Your task to perform on an android device: turn notification dots on Image 0: 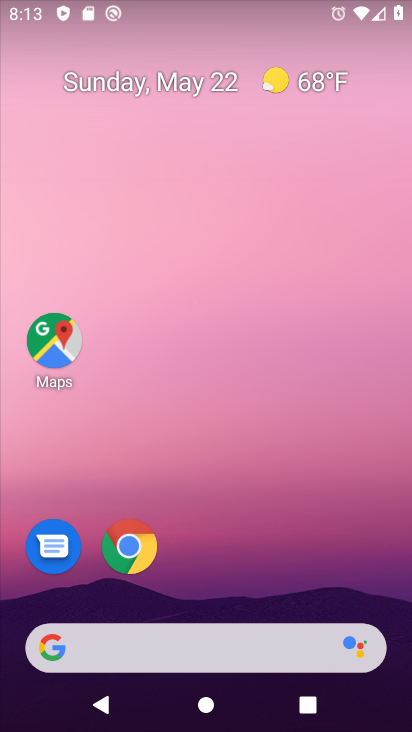
Step 0: drag from (167, 458) to (76, 11)
Your task to perform on an android device: turn notification dots on Image 1: 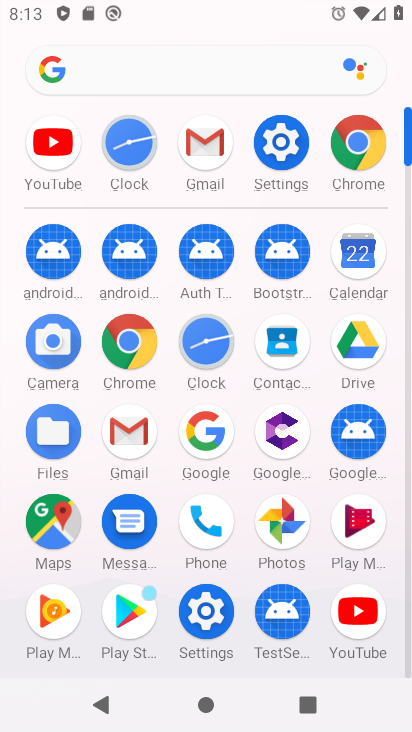
Step 1: drag from (289, 581) to (219, 48)
Your task to perform on an android device: turn notification dots on Image 2: 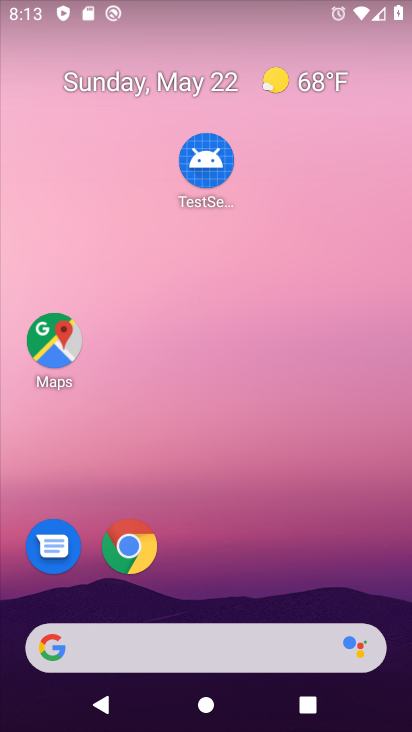
Step 2: drag from (237, 579) to (208, 109)
Your task to perform on an android device: turn notification dots on Image 3: 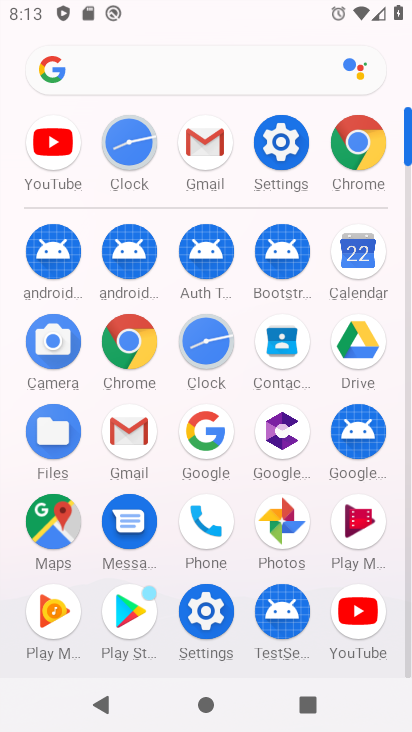
Step 3: click (196, 18)
Your task to perform on an android device: turn notification dots on Image 4: 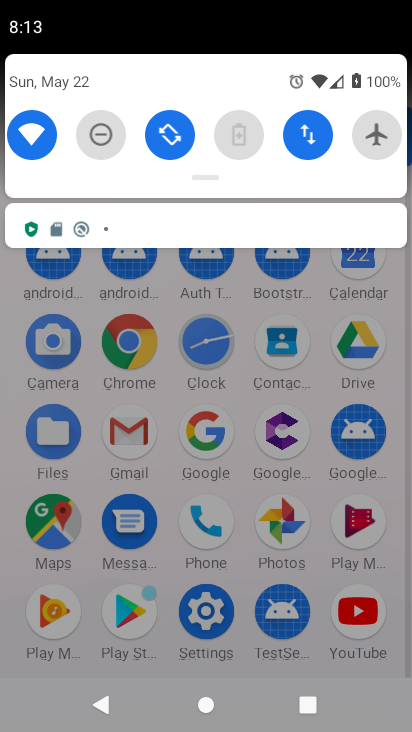
Step 4: drag from (303, 276) to (165, 156)
Your task to perform on an android device: turn notification dots on Image 5: 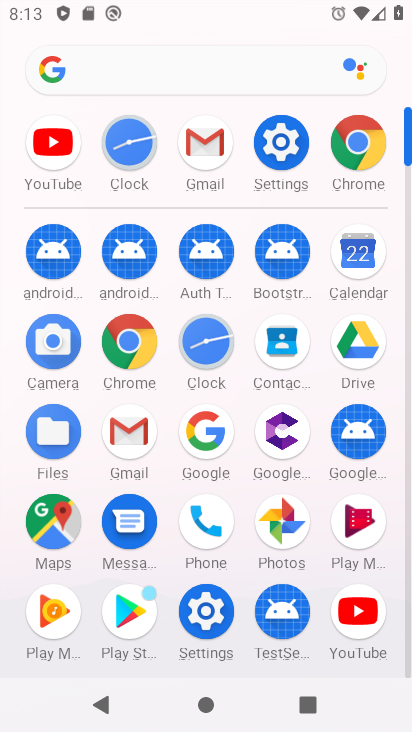
Step 5: drag from (247, 593) to (109, 82)
Your task to perform on an android device: turn notification dots on Image 6: 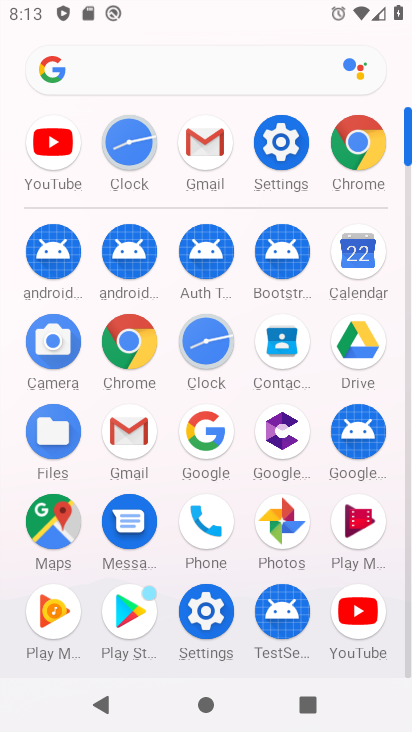
Step 6: drag from (165, 569) to (147, 6)
Your task to perform on an android device: turn notification dots on Image 7: 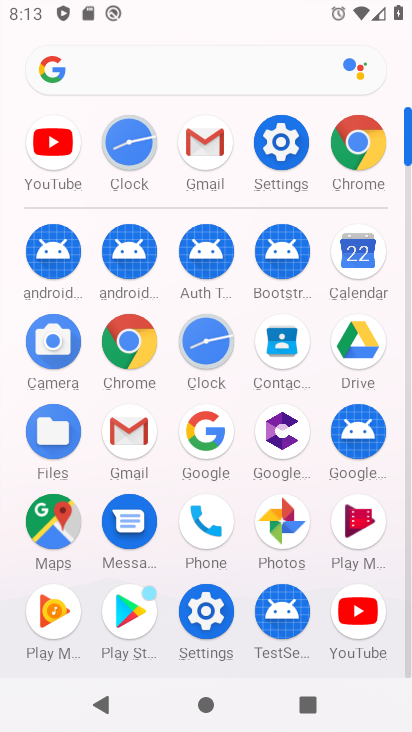
Step 7: drag from (359, 580) to (264, 24)
Your task to perform on an android device: turn notification dots on Image 8: 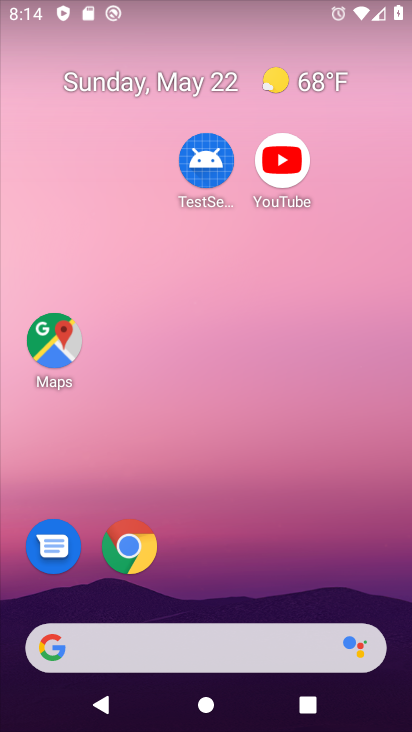
Step 8: click (283, 137)
Your task to perform on an android device: turn notification dots on Image 9: 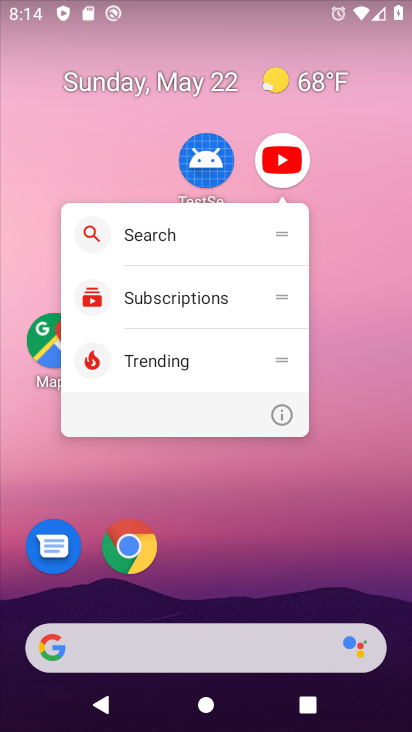
Step 9: click (287, 103)
Your task to perform on an android device: turn notification dots on Image 10: 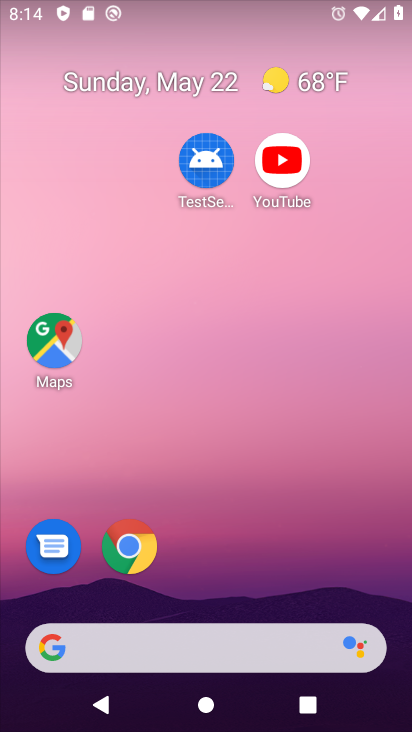
Step 10: click (311, 143)
Your task to perform on an android device: turn notification dots on Image 11: 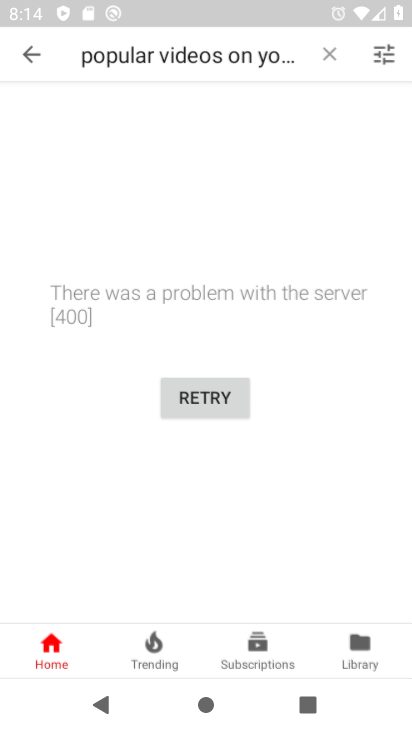
Step 11: task complete